Your task to perform on an android device: turn on location history Image 0: 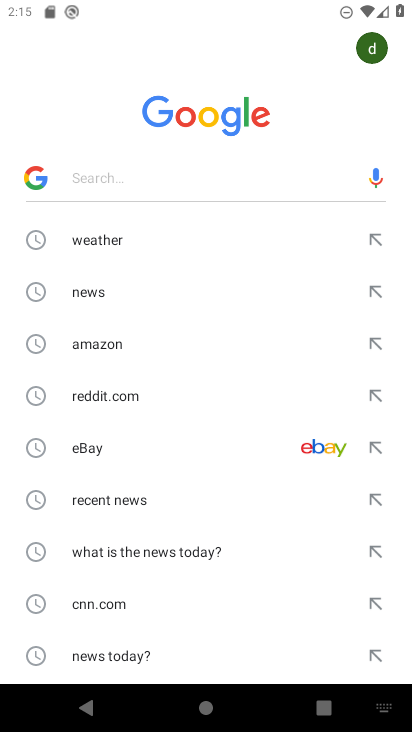
Step 0: press home button
Your task to perform on an android device: turn on location history Image 1: 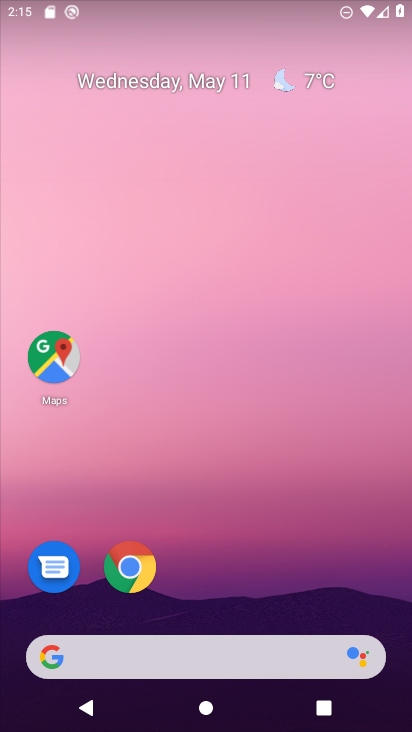
Step 1: drag from (339, 565) to (282, 261)
Your task to perform on an android device: turn on location history Image 2: 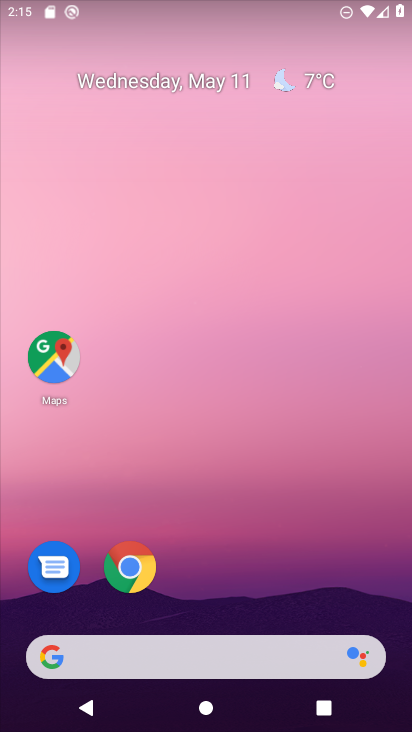
Step 2: drag from (351, 586) to (284, 191)
Your task to perform on an android device: turn on location history Image 3: 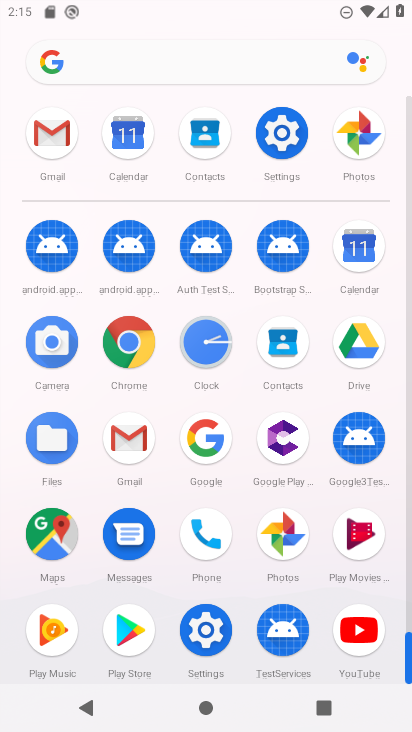
Step 3: click (204, 624)
Your task to perform on an android device: turn on location history Image 4: 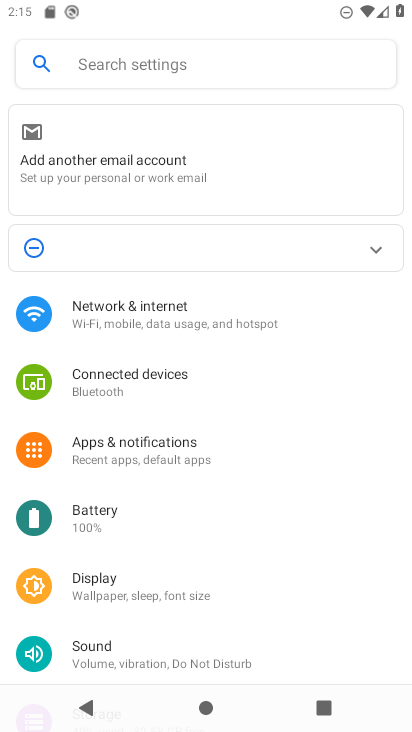
Step 4: drag from (189, 571) to (173, 411)
Your task to perform on an android device: turn on location history Image 5: 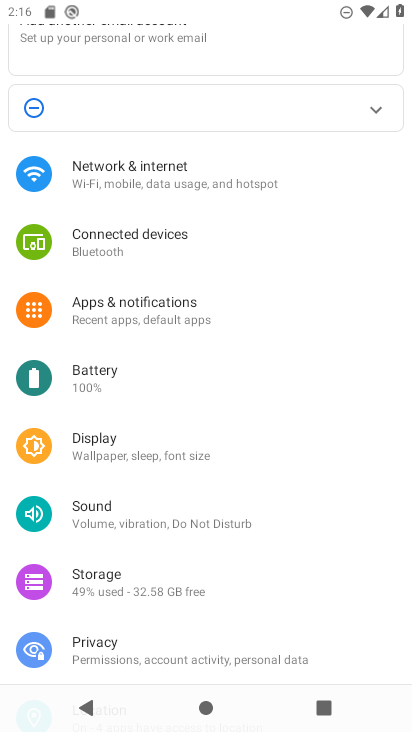
Step 5: drag from (213, 630) to (178, 466)
Your task to perform on an android device: turn on location history Image 6: 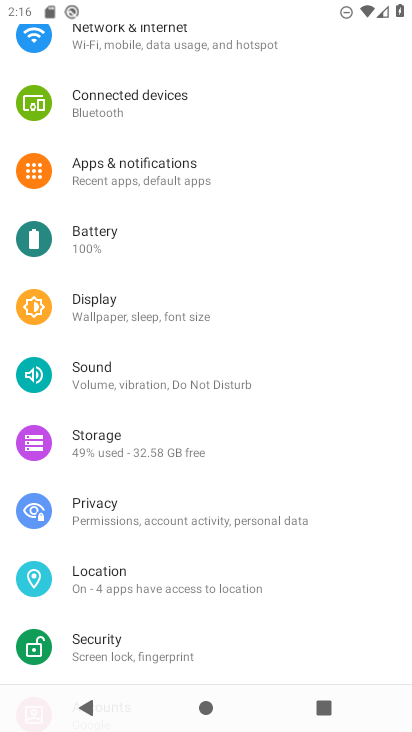
Step 6: click (166, 576)
Your task to perform on an android device: turn on location history Image 7: 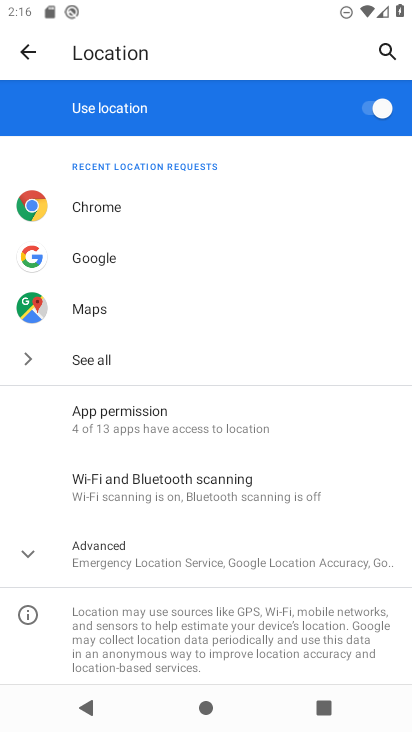
Step 7: click (216, 555)
Your task to perform on an android device: turn on location history Image 8: 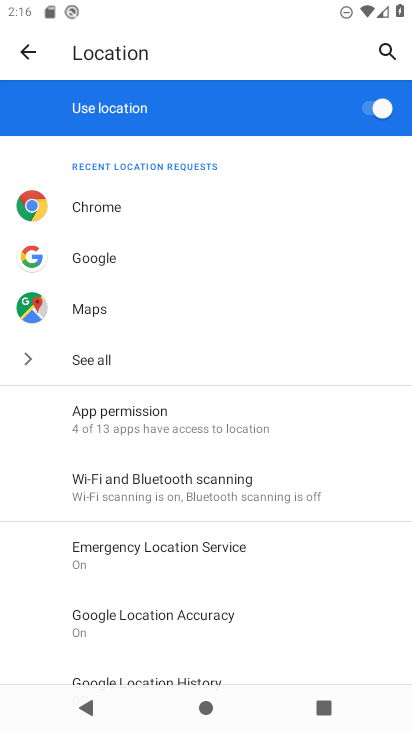
Step 8: drag from (225, 662) to (185, 531)
Your task to perform on an android device: turn on location history Image 9: 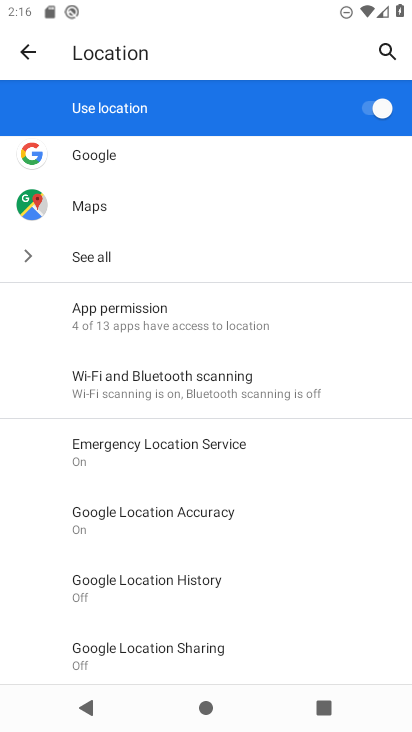
Step 9: click (164, 577)
Your task to perform on an android device: turn on location history Image 10: 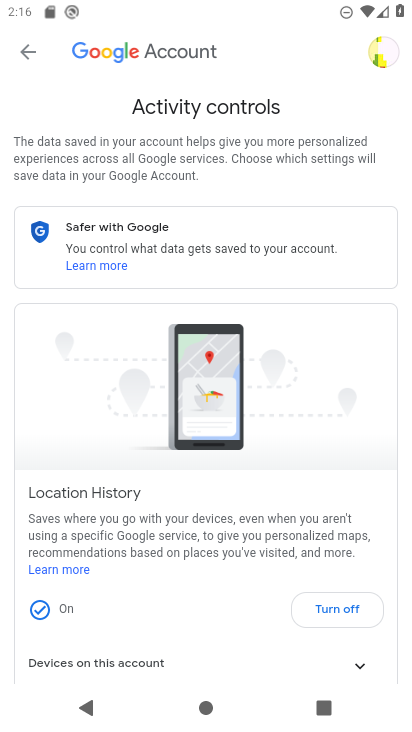
Step 10: task complete